Your task to perform on an android device: Open Chrome and go to settings Image 0: 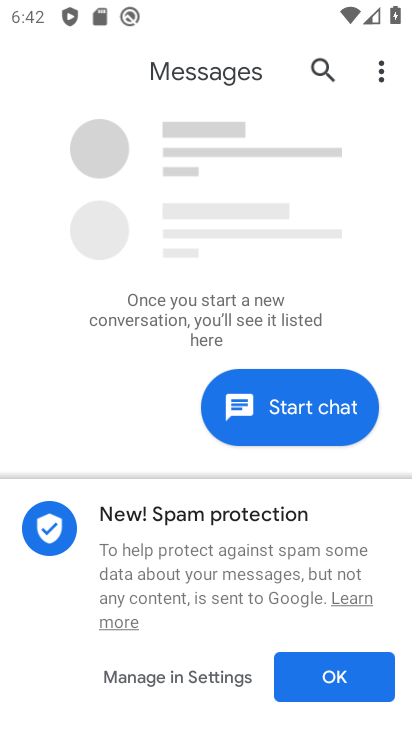
Step 0: press home button
Your task to perform on an android device: Open Chrome and go to settings Image 1: 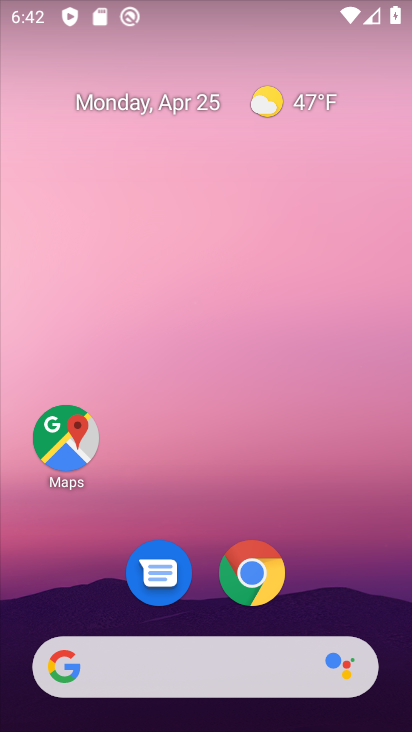
Step 1: click (268, 563)
Your task to perform on an android device: Open Chrome and go to settings Image 2: 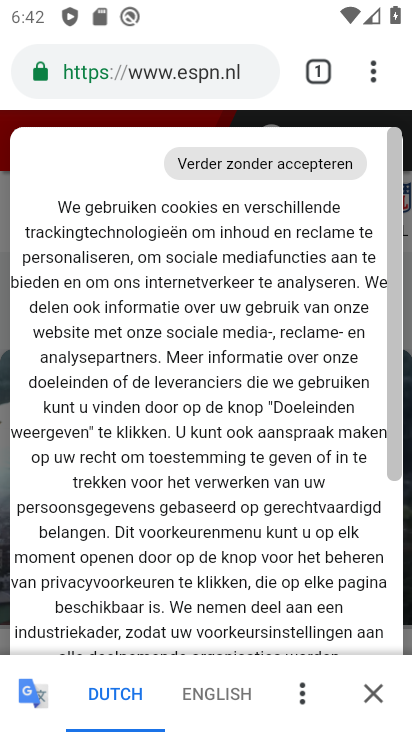
Step 2: click (373, 72)
Your task to perform on an android device: Open Chrome and go to settings Image 3: 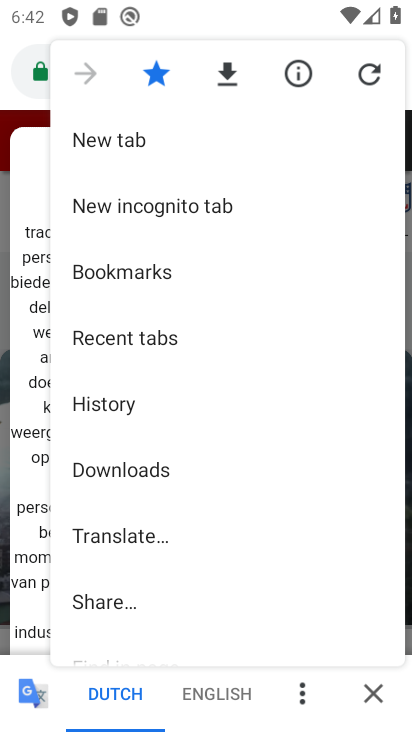
Step 3: drag from (257, 548) to (190, 161)
Your task to perform on an android device: Open Chrome and go to settings Image 4: 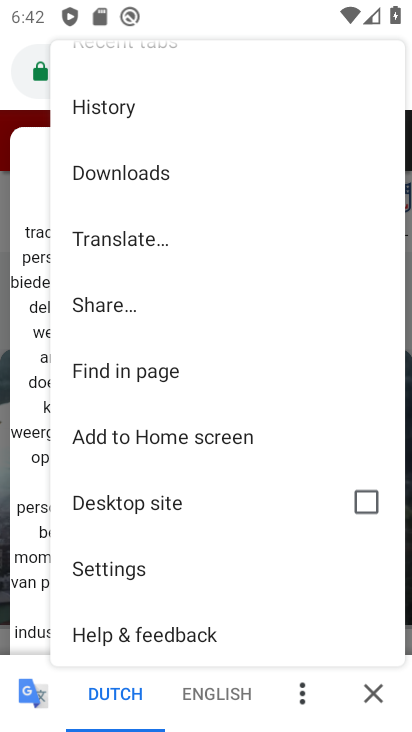
Step 4: click (190, 557)
Your task to perform on an android device: Open Chrome and go to settings Image 5: 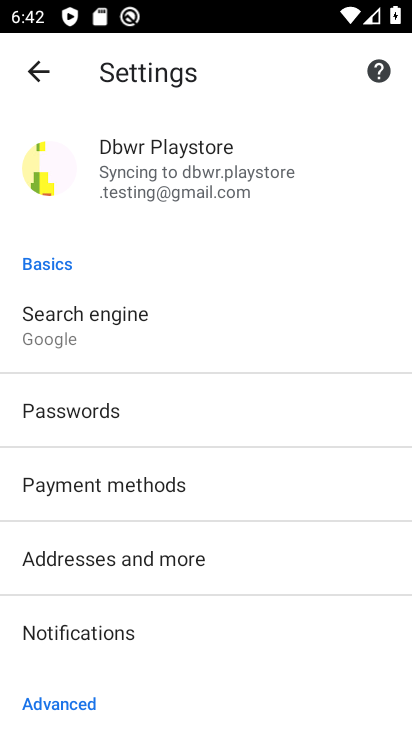
Step 5: task complete